Your task to perform on an android device: Open sound settings Image 0: 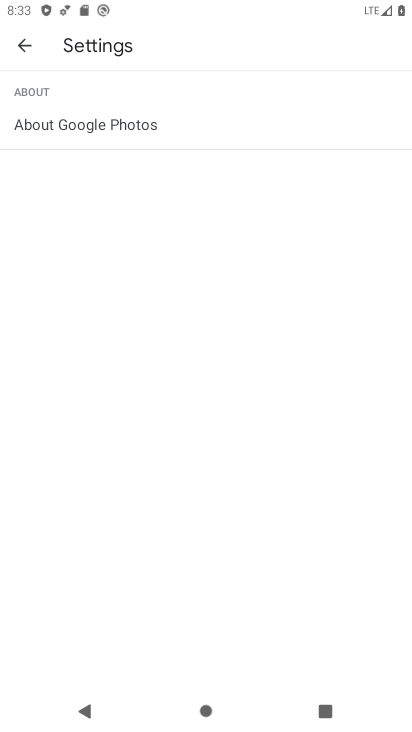
Step 0: press home button
Your task to perform on an android device: Open sound settings Image 1: 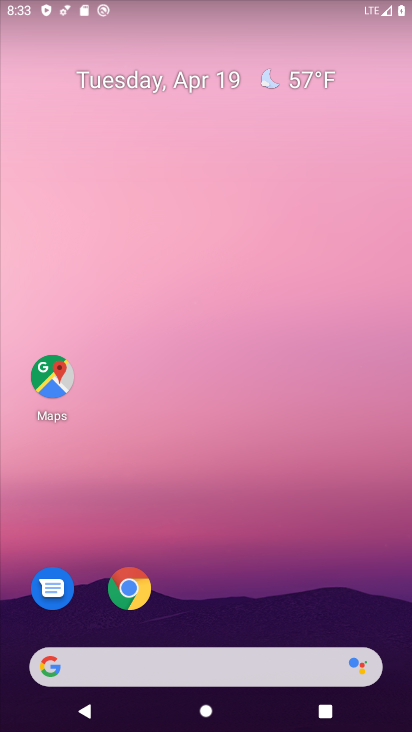
Step 1: drag from (263, 619) to (199, 0)
Your task to perform on an android device: Open sound settings Image 2: 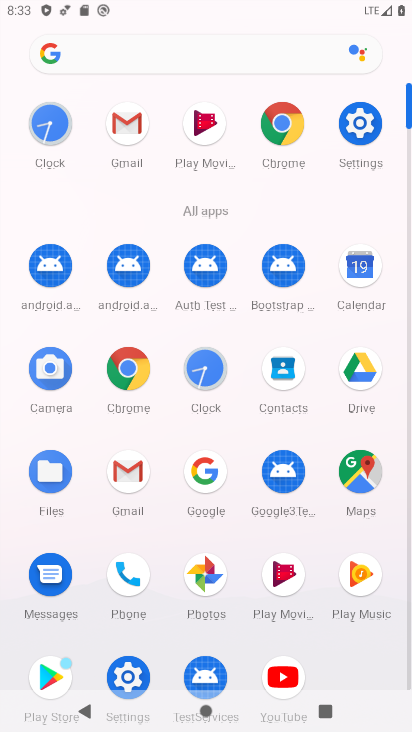
Step 2: click (362, 119)
Your task to perform on an android device: Open sound settings Image 3: 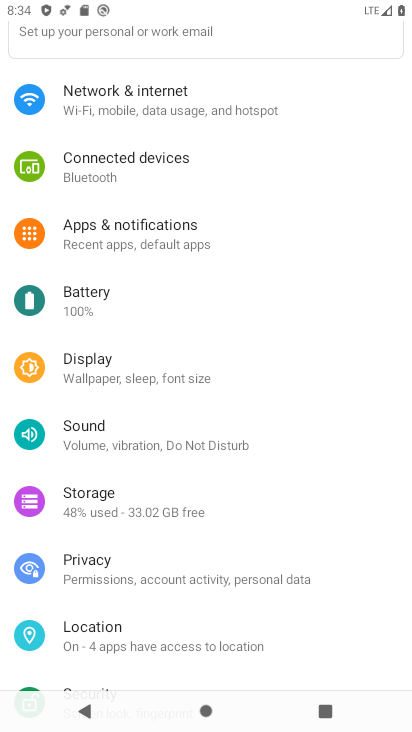
Step 3: click (158, 435)
Your task to perform on an android device: Open sound settings Image 4: 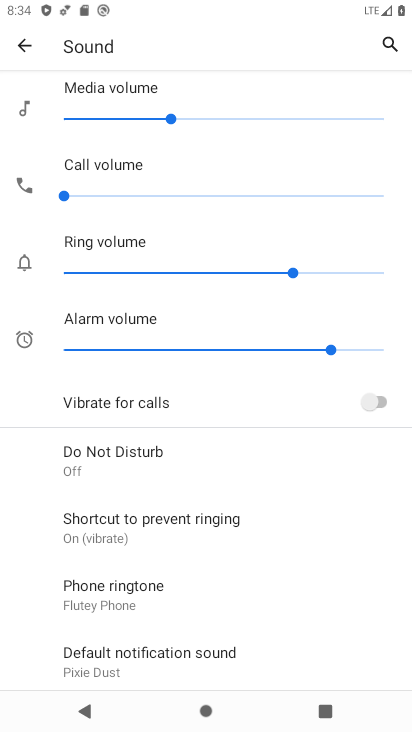
Step 4: task complete